Your task to perform on an android device: Open Youtube and go to the subscriptions tab Image 0: 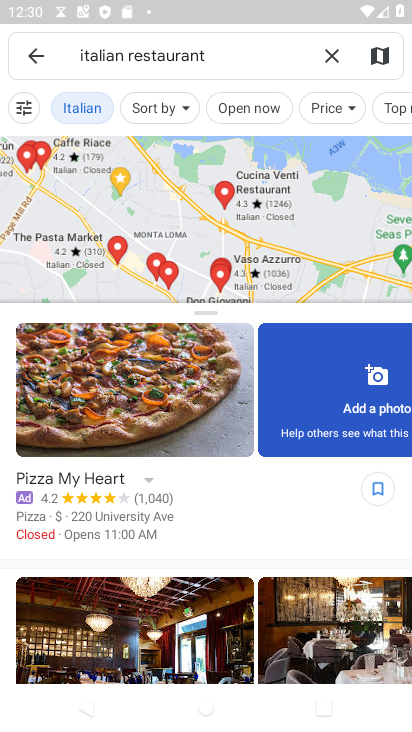
Step 0: press home button
Your task to perform on an android device: Open Youtube and go to the subscriptions tab Image 1: 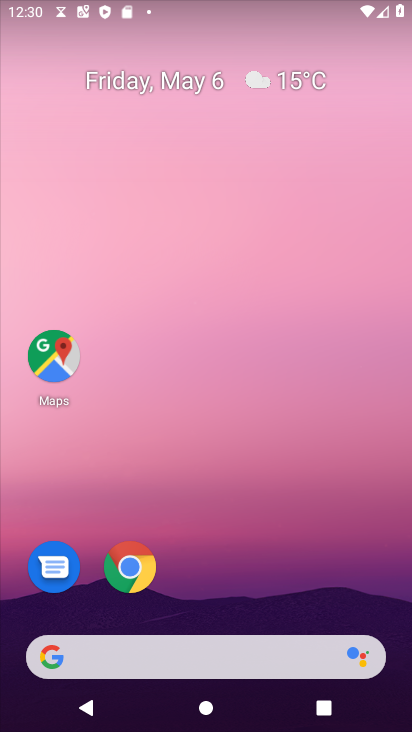
Step 1: drag from (334, 516) to (330, 67)
Your task to perform on an android device: Open Youtube and go to the subscriptions tab Image 2: 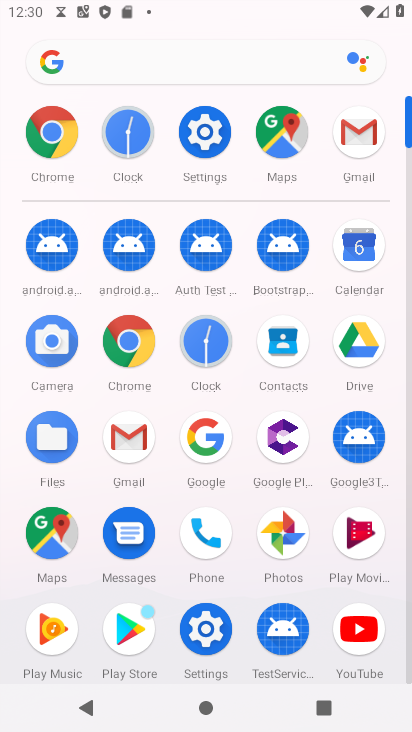
Step 2: click (360, 624)
Your task to perform on an android device: Open Youtube and go to the subscriptions tab Image 3: 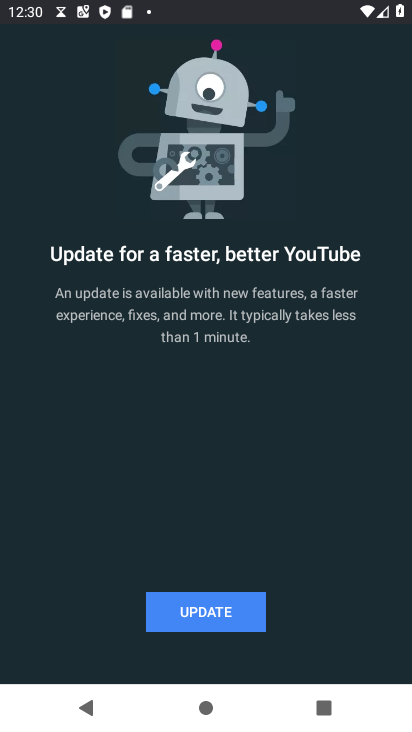
Step 3: click (217, 611)
Your task to perform on an android device: Open Youtube and go to the subscriptions tab Image 4: 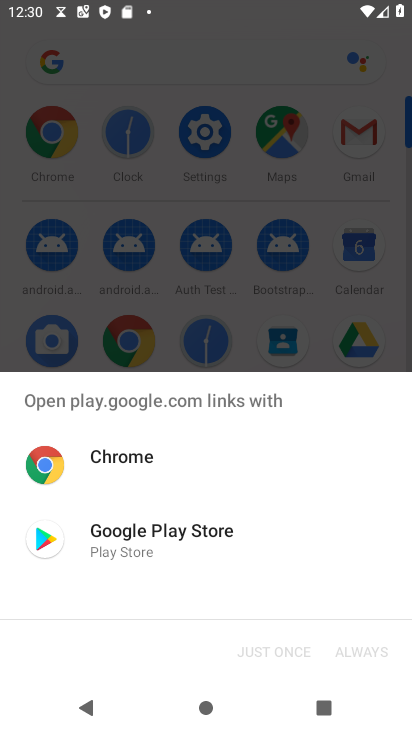
Step 4: click (74, 543)
Your task to perform on an android device: Open Youtube and go to the subscriptions tab Image 5: 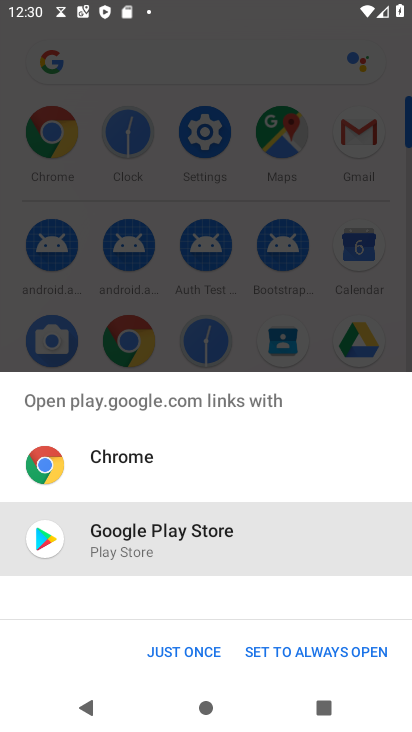
Step 5: click (180, 649)
Your task to perform on an android device: Open Youtube and go to the subscriptions tab Image 6: 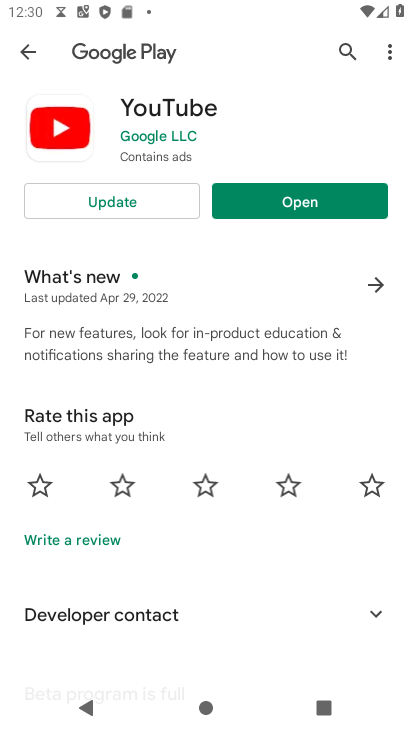
Step 6: click (132, 197)
Your task to perform on an android device: Open Youtube and go to the subscriptions tab Image 7: 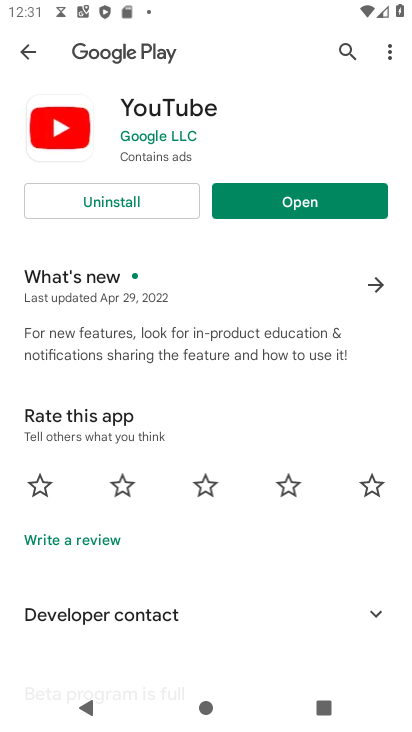
Step 7: click (295, 207)
Your task to perform on an android device: Open Youtube and go to the subscriptions tab Image 8: 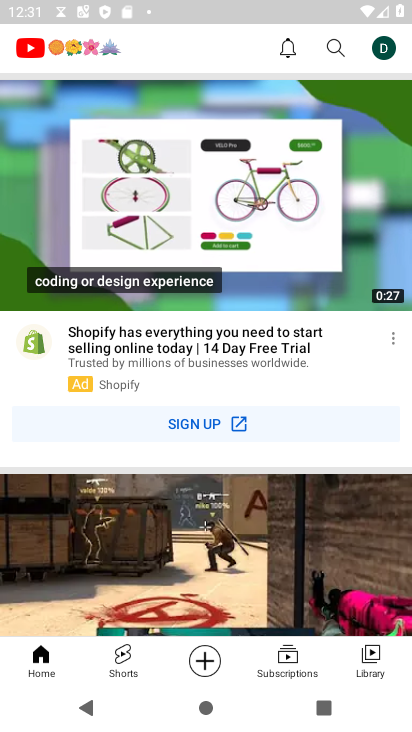
Step 8: click (279, 668)
Your task to perform on an android device: Open Youtube and go to the subscriptions tab Image 9: 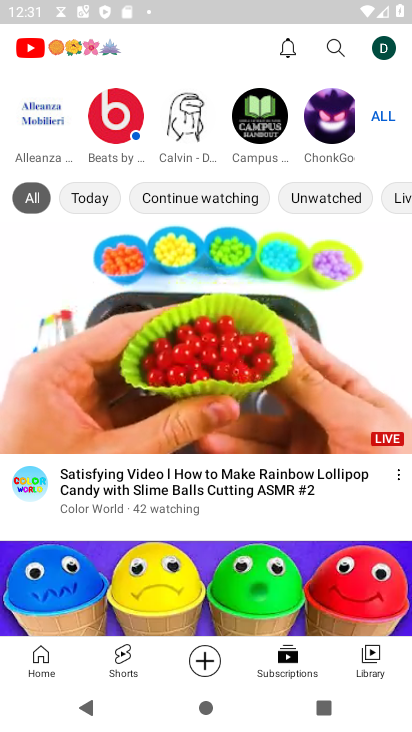
Step 9: task complete